Your task to perform on an android device: Check the weather Image 0: 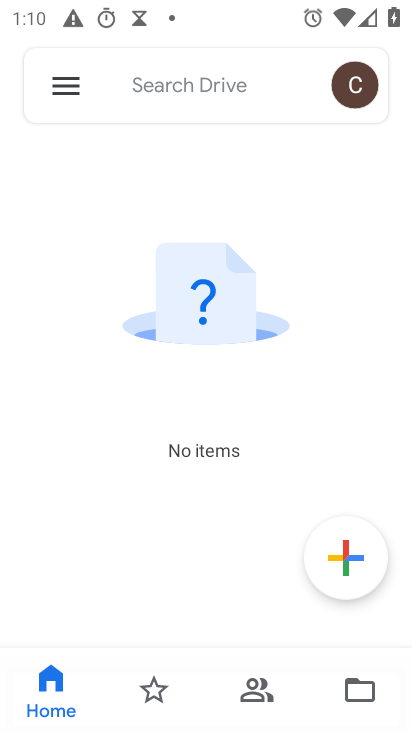
Step 0: press home button
Your task to perform on an android device: Check the weather Image 1: 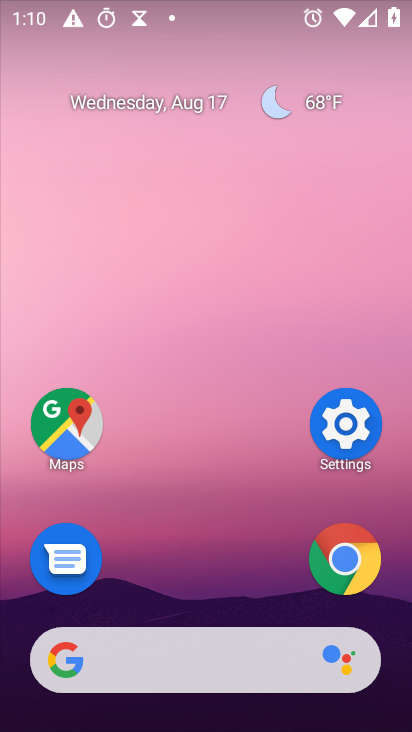
Step 1: click (134, 643)
Your task to perform on an android device: Check the weather Image 2: 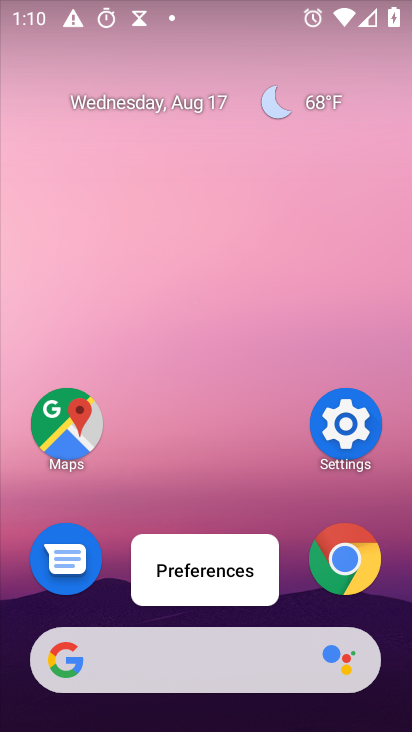
Step 2: click (147, 654)
Your task to perform on an android device: Check the weather Image 3: 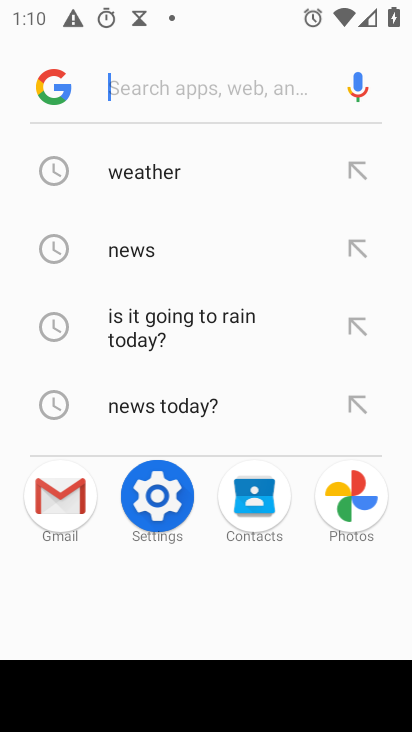
Step 3: click (112, 167)
Your task to perform on an android device: Check the weather Image 4: 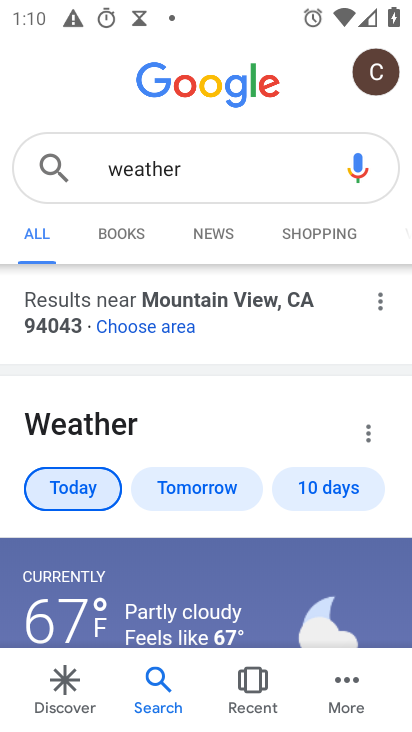
Step 4: task complete